Your task to perform on an android device: install app "DuckDuckGo Privacy Browser" Image 0: 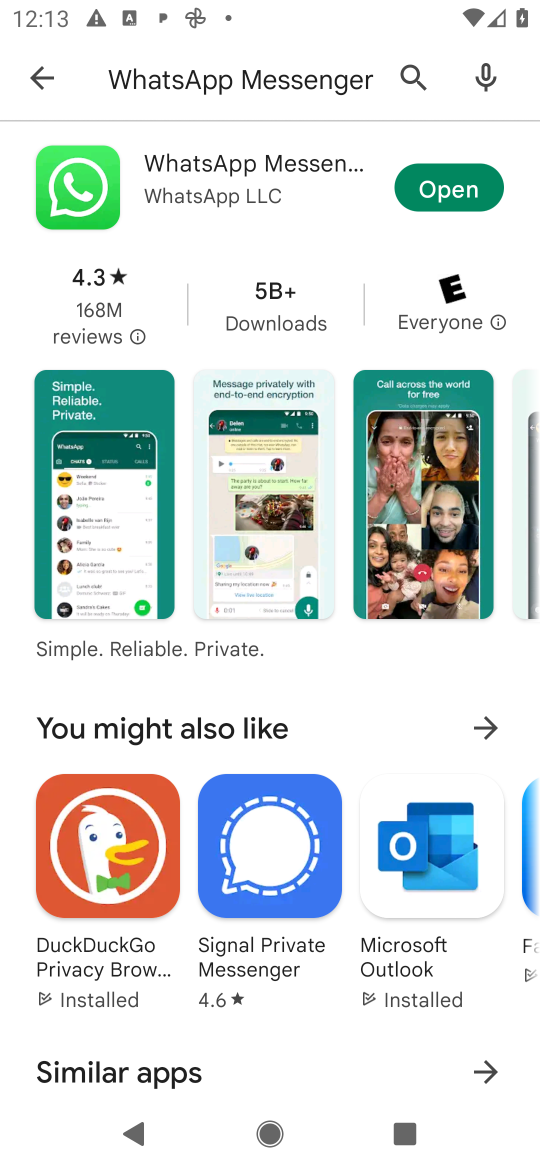
Step 0: press home button
Your task to perform on an android device: install app "DuckDuckGo Privacy Browser" Image 1: 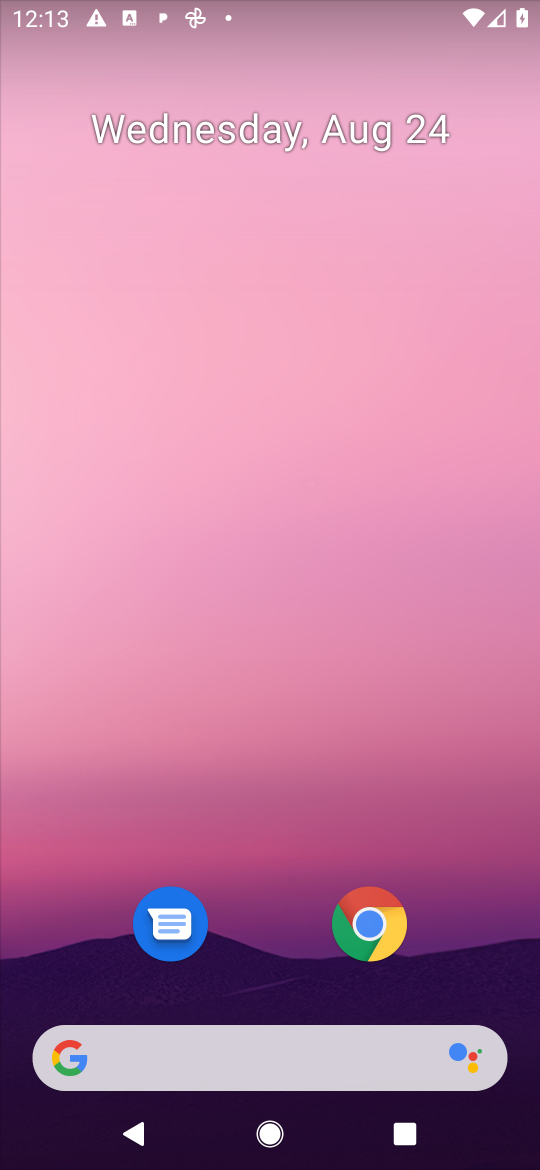
Step 1: drag from (461, 960) to (452, 249)
Your task to perform on an android device: install app "DuckDuckGo Privacy Browser" Image 2: 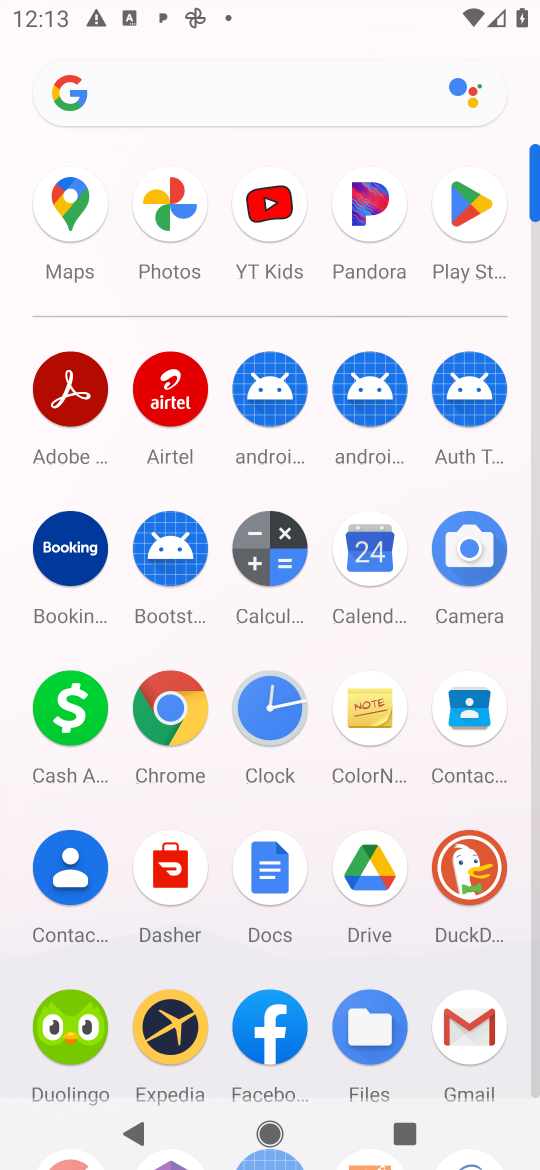
Step 2: click (467, 205)
Your task to perform on an android device: install app "DuckDuckGo Privacy Browser" Image 3: 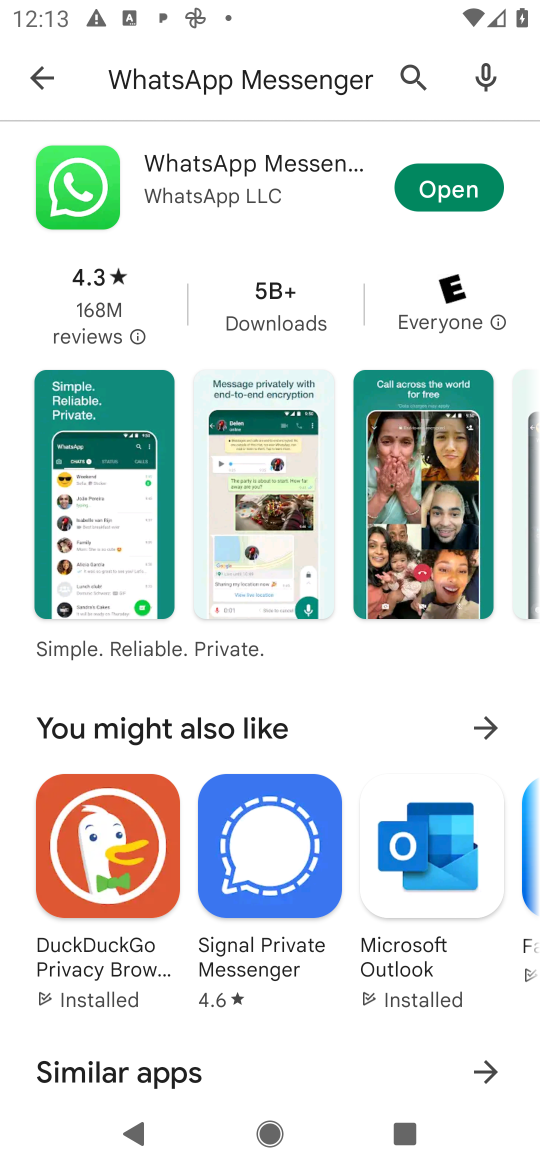
Step 3: press back button
Your task to perform on an android device: install app "DuckDuckGo Privacy Browser" Image 4: 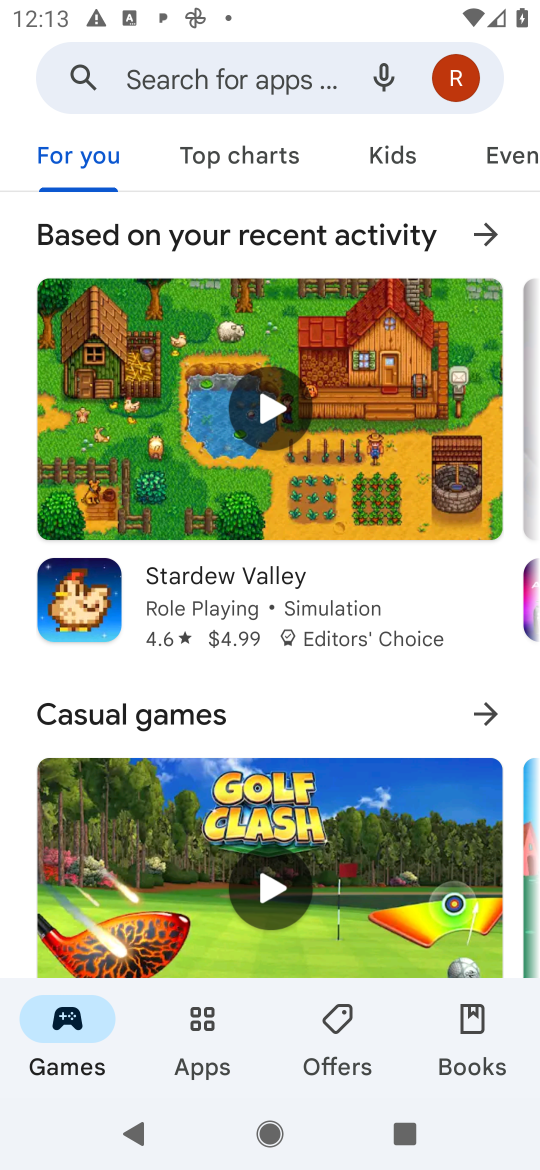
Step 4: click (253, 82)
Your task to perform on an android device: install app "DuckDuckGo Privacy Browser" Image 5: 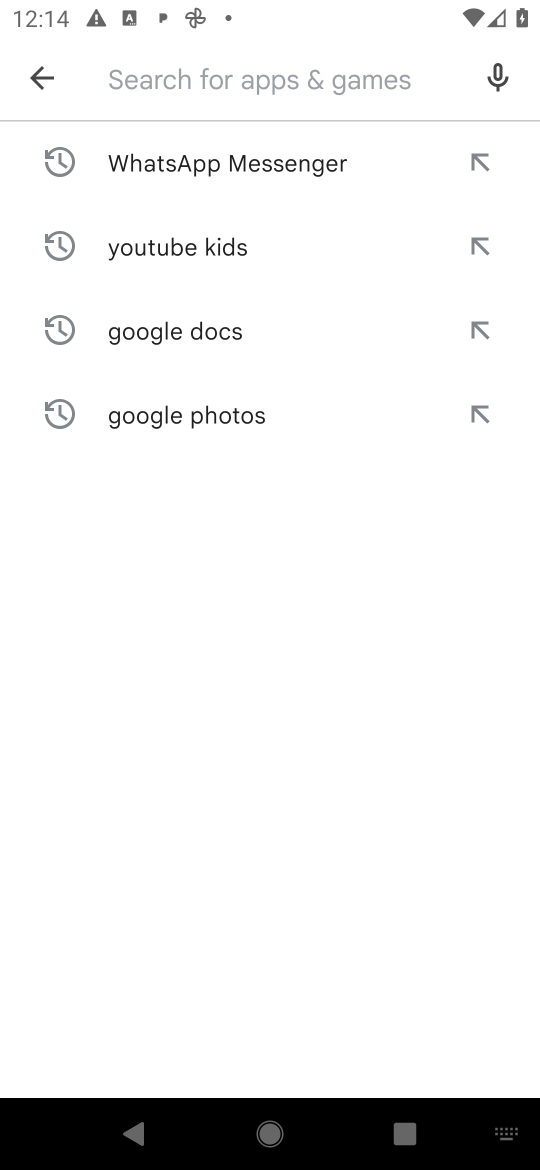
Step 5: press enter
Your task to perform on an android device: install app "DuckDuckGo Privacy Browser" Image 6: 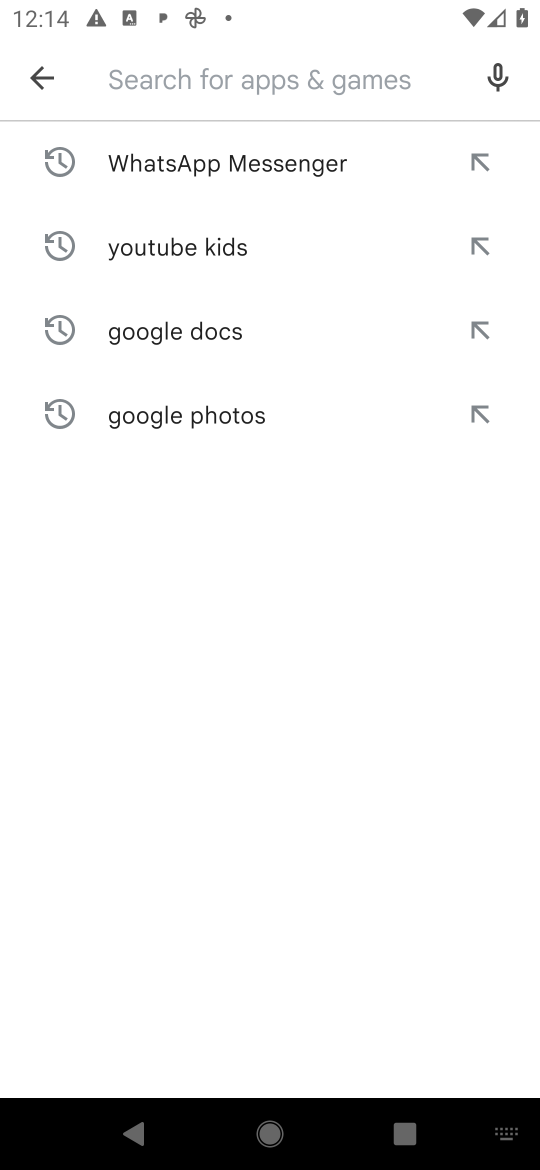
Step 6: type "DuckDuckGo Privacy Browser"
Your task to perform on an android device: install app "DuckDuckGo Privacy Browser" Image 7: 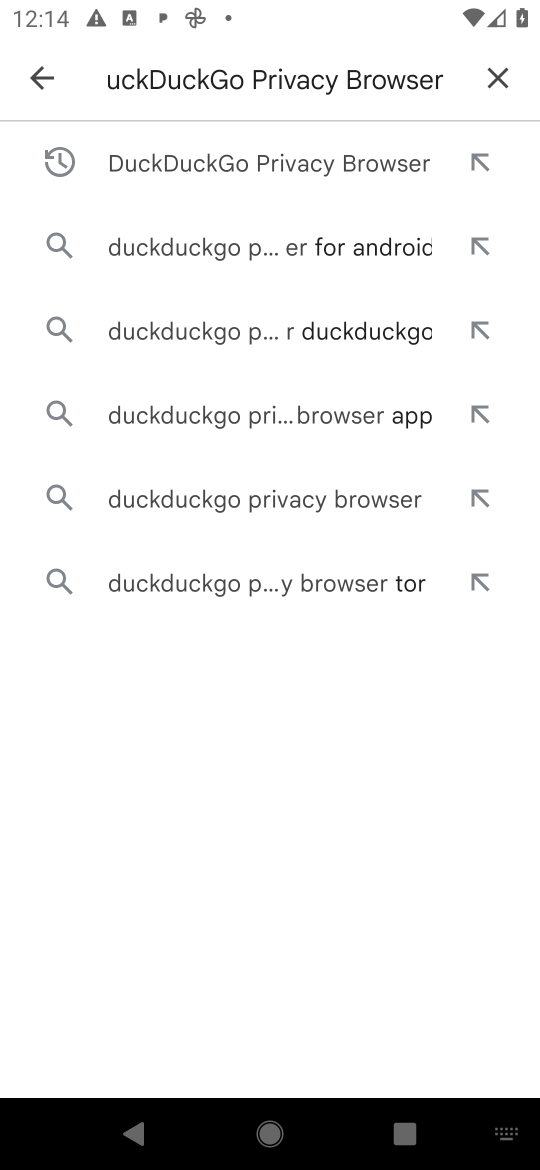
Step 7: click (349, 178)
Your task to perform on an android device: install app "DuckDuckGo Privacy Browser" Image 8: 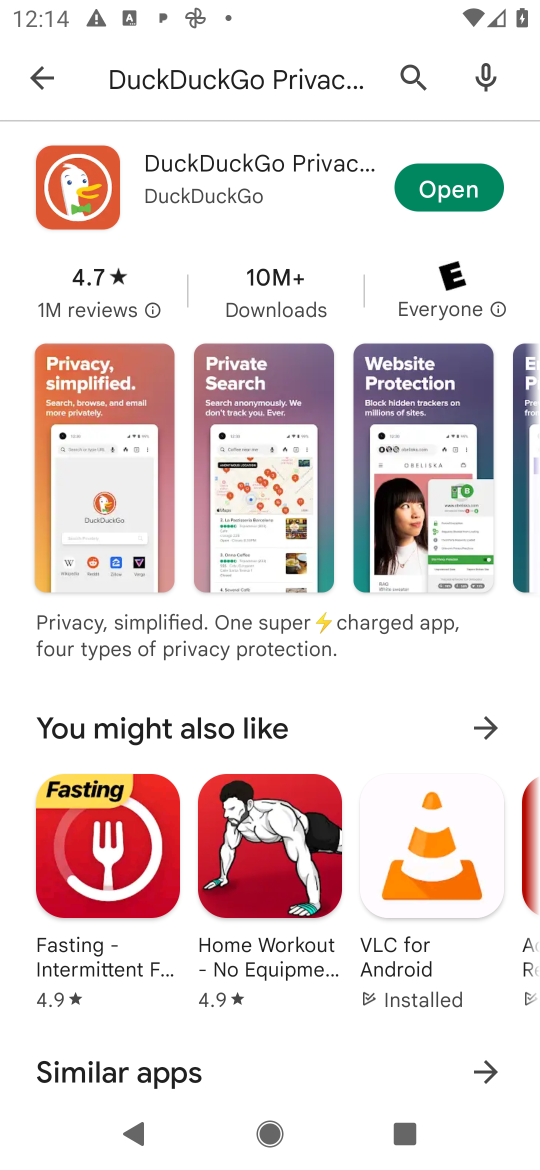
Step 8: task complete